Your task to perform on an android device: Search for sushi restaurants on Maps Image 0: 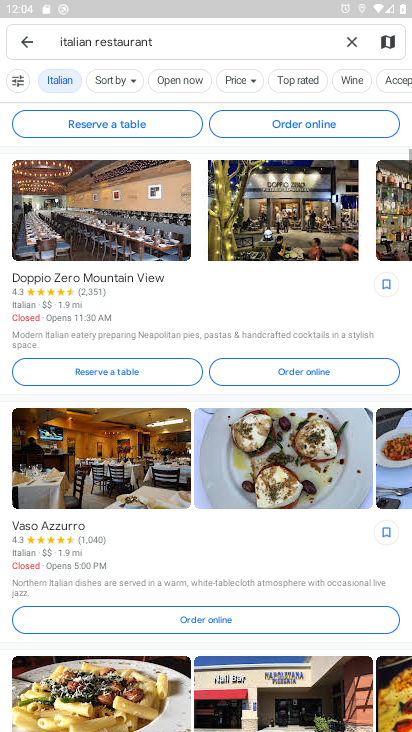
Step 0: drag from (210, 486) to (206, 164)
Your task to perform on an android device: Search for sushi restaurants on Maps Image 1: 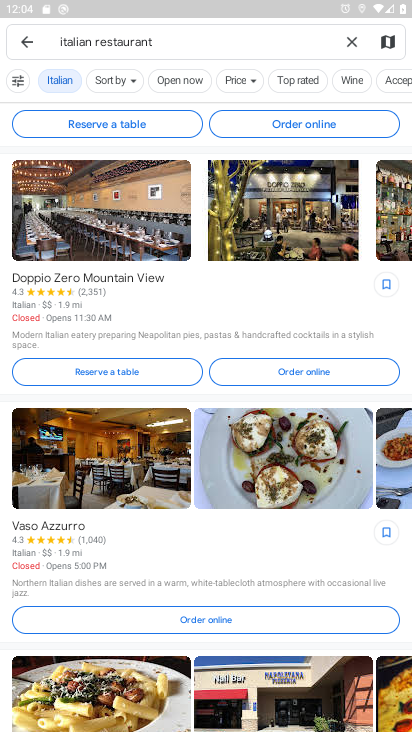
Step 1: click (345, 38)
Your task to perform on an android device: Search for sushi restaurants on Maps Image 2: 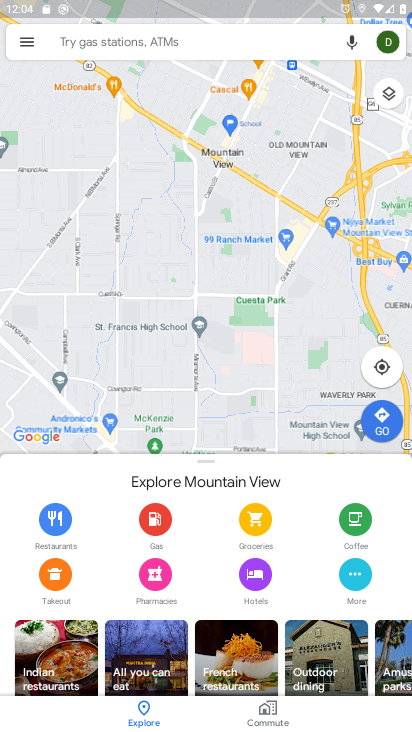
Step 2: click (129, 35)
Your task to perform on an android device: Search for sushi restaurants on Maps Image 3: 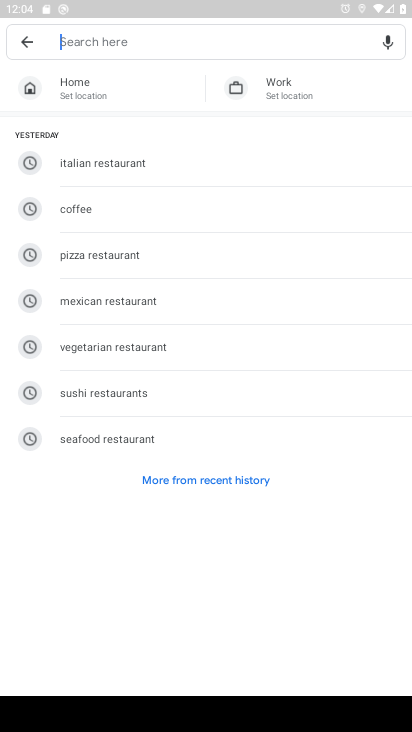
Step 3: click (94, 384)
Your task to perform on an android device: Search for sushi restaurants on Maps Image 4: 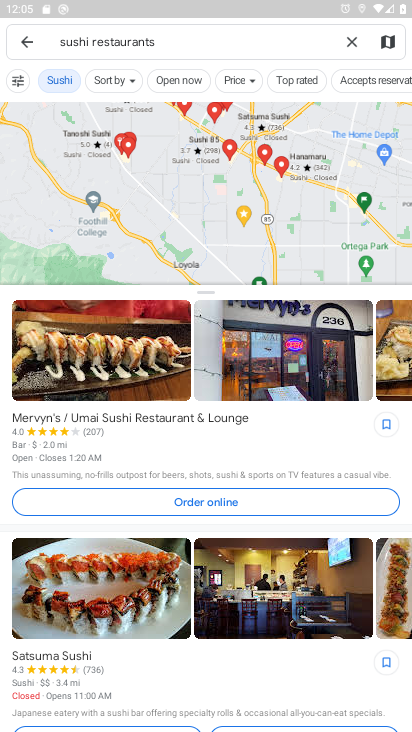
Step 4: task complete